Your task to perform on an android device: turn off data saver in the chrome app Image 0: 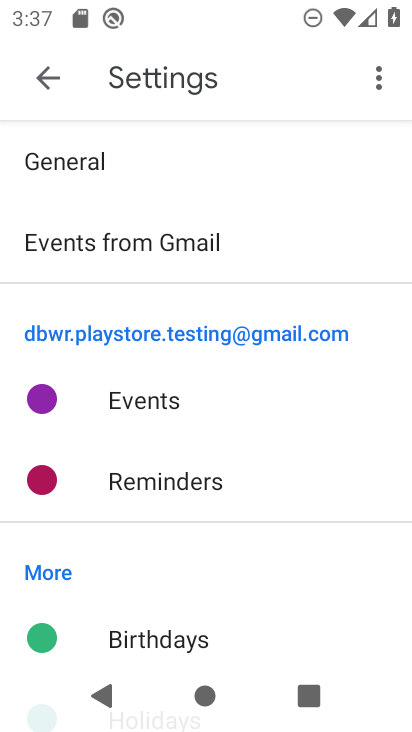
Step 0: press home button
Your task to perform on an android device: turn off data saver in the chrome app Image 1: 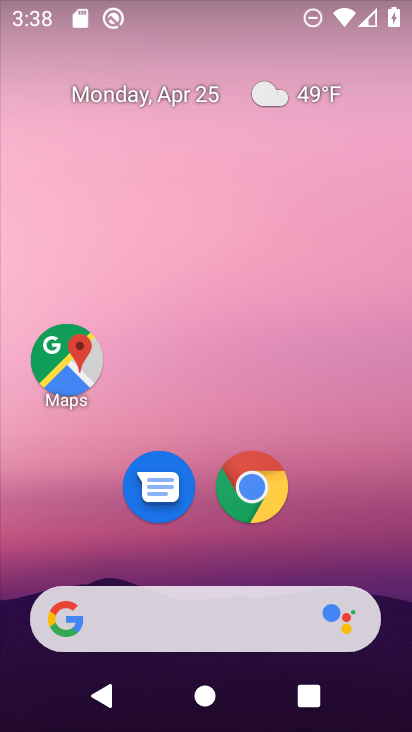
Step 1: click (258, 493)
Your task to perform on an android device: turn off data saver in the chrome app Image 2: 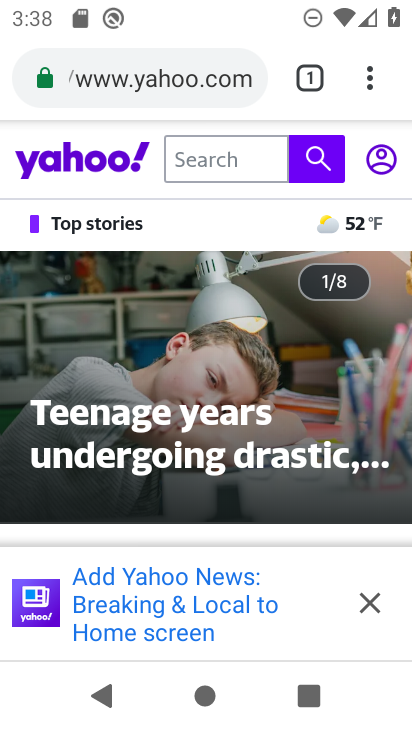
Step 2: drag from (371, 77) to (110, 548)
Your task to perform on an android device: turn off data saver in the chrome app Image 3: 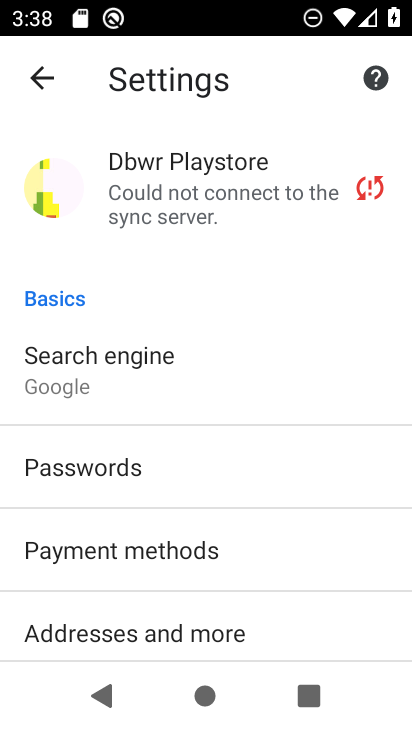
Step 3: drag from (277, 579) to (267, 292)
Your task to perform on an android device: turn off data saver in the chrome app Image 4: 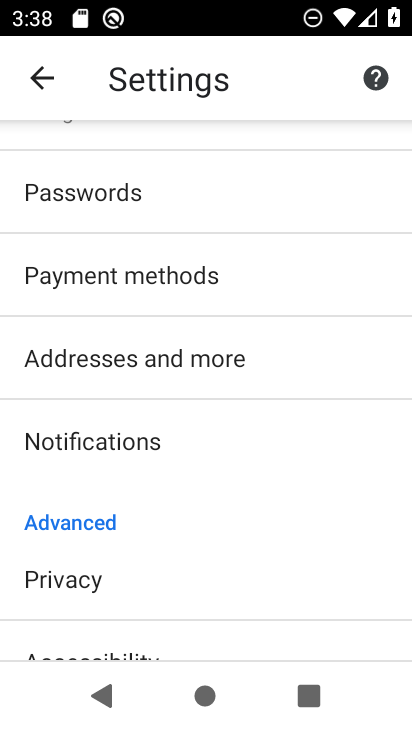
Step 4: drag from (203, 585) to (190, 235)
Your task to perform on an android device: turn off data saver in the chrome app Image 5: 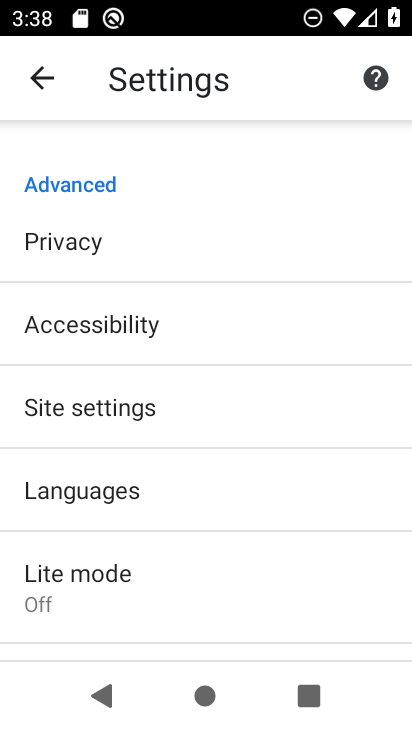
Step 5: click (81, 590)
Your task to perform on an android device: turn off data saver in the chrome app Image 6: 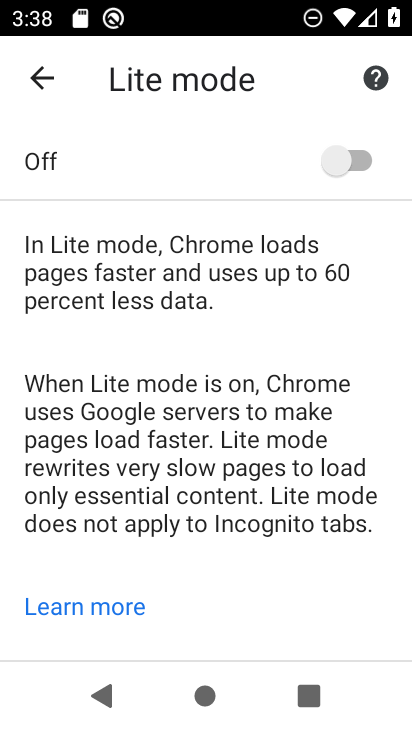
Step 6: task complete